Your task to perform on an android device: Open Yahoo.com Image 0: 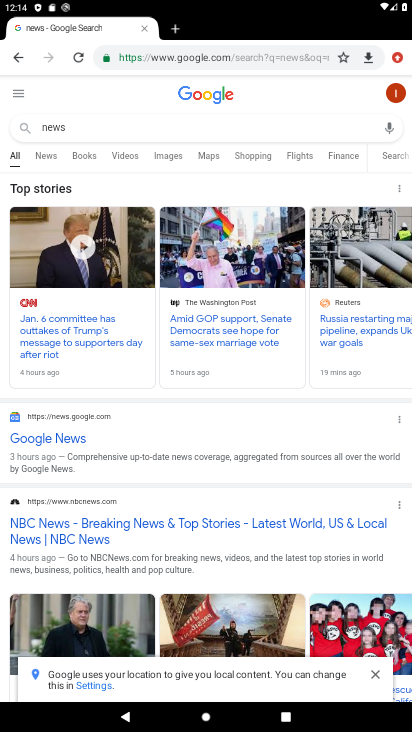
Step 0: click (260, 55)
Your task to perform on an android device: Open Yahoo.com Image 1: 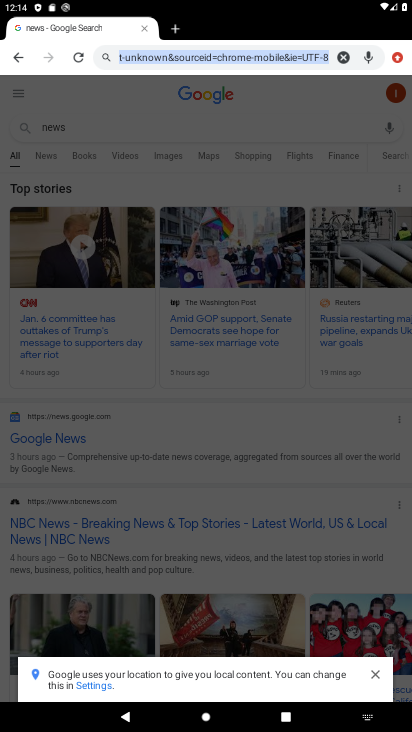
Step 1: type "yahoo.com"
Your task to perform on an android device: Open Yahoo.com Image 2: 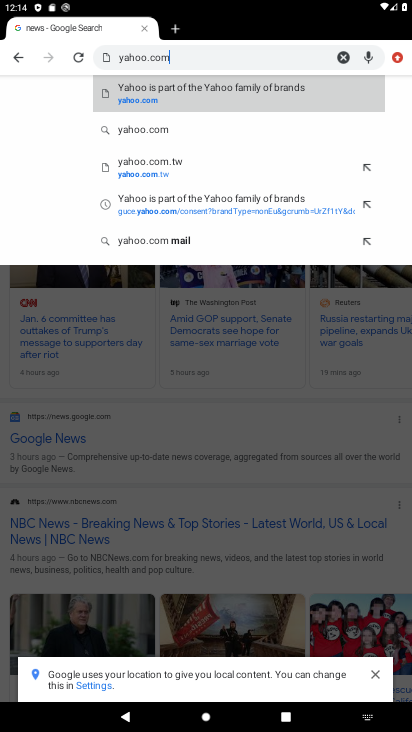
Step 2: click (185, 82)
Your task to perform on an android device: Open Yahoo.com Image 3: 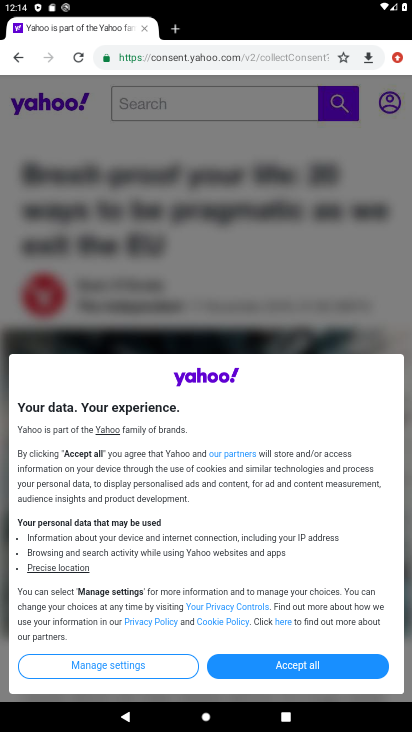
Step 3: task complete